Your task to perform on an android device: open app "Firefox Browser" (install if not already installed) Image 0: 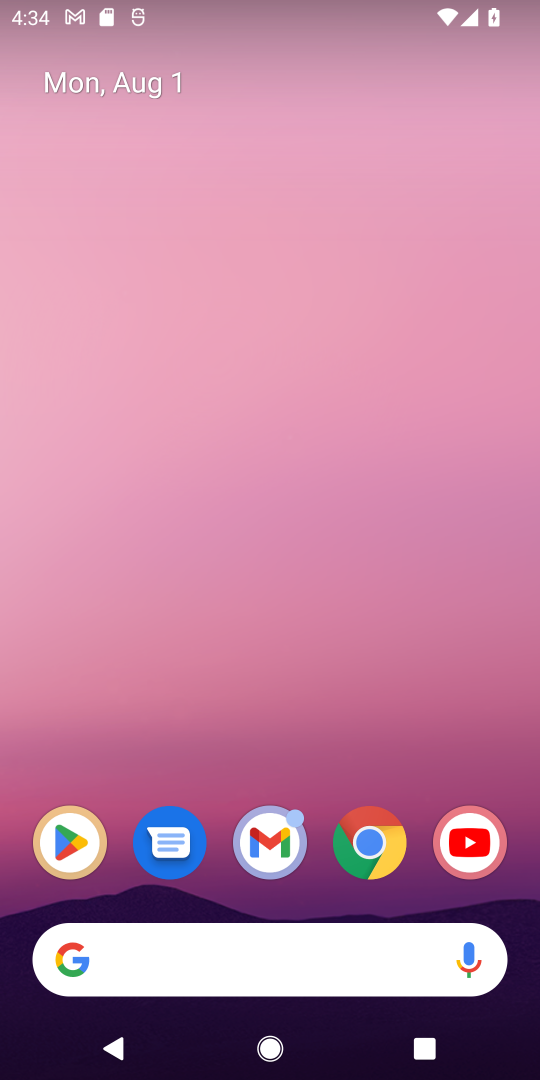
Step 0: drag from (347, 1009) to (206, 55)
Your task to perform on an android device: open app "Firefox Browser" (install if not already installed) Image 1: 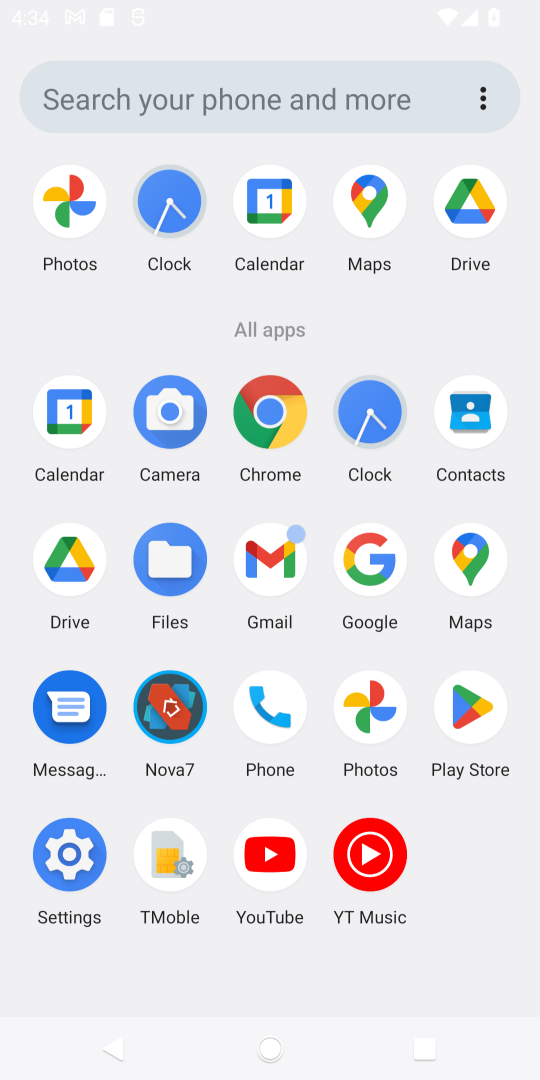
Step 1: drag from (348, 738) to (211, 140)
Your task to perform on an android device: open app "Firefox Browser" (install if not already installed) Image 2: 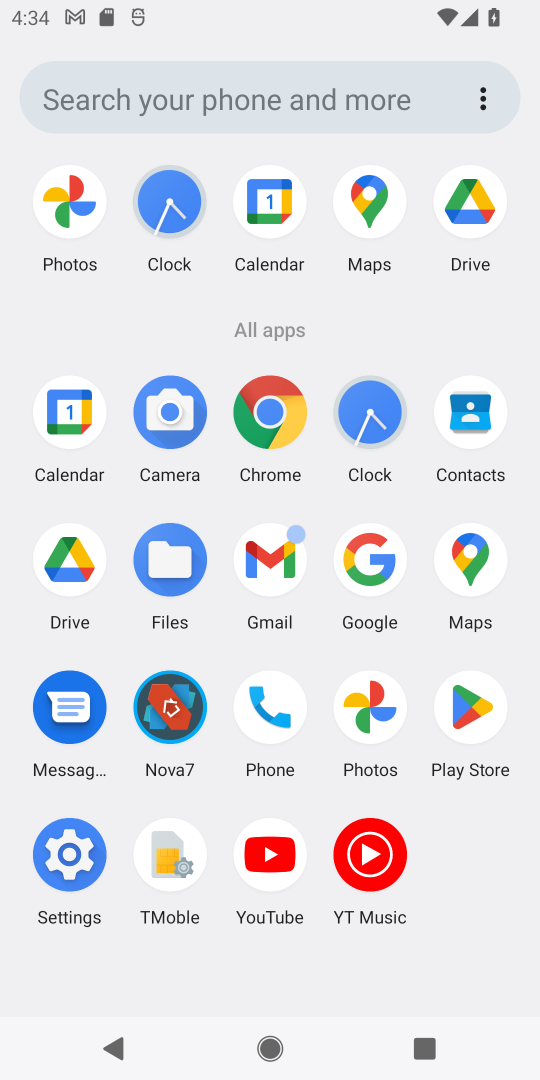
Step 2: click (431, 695)
Your task to perform on an android device: open app "Firefox Browser" (install if not already installed) Image 3: 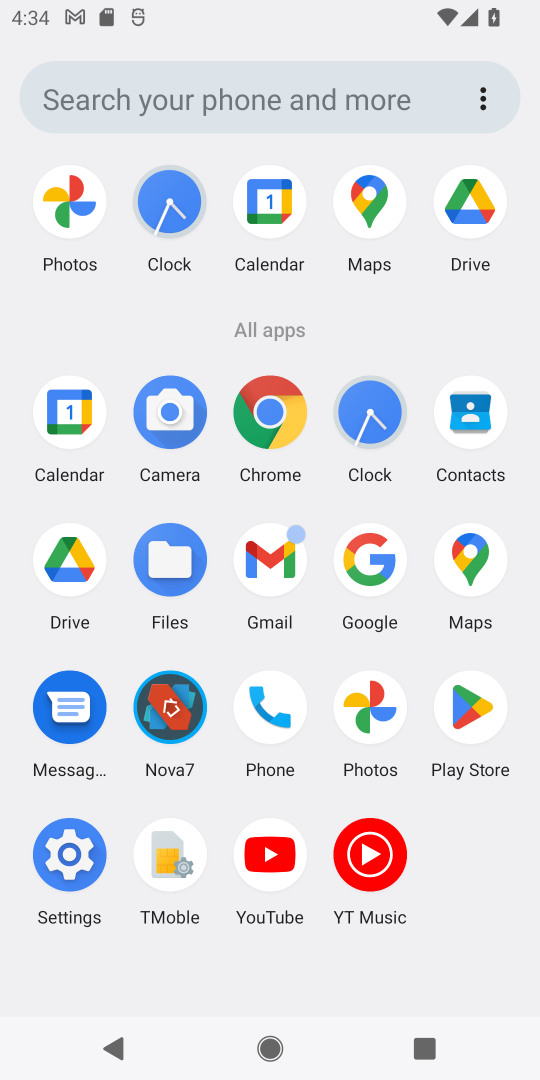
Step 3: click (439, 696)
Your task to perform on an android device: open app "Firefox Browser" (install if not already installed) Image 4: 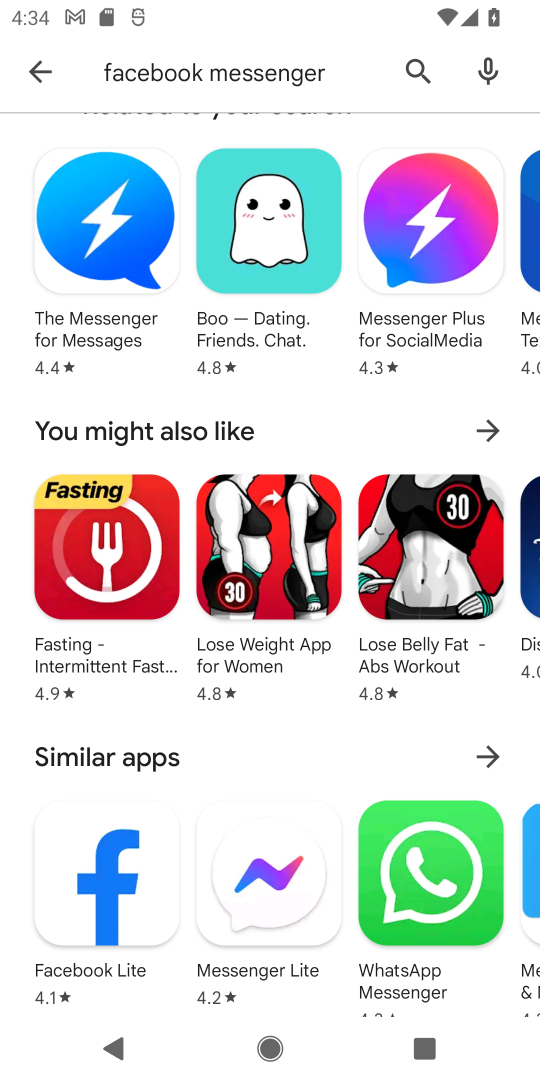
Step 4: click (32, 64)
Your task to perform on an android device: open app "Firefox Browser" (install if not already installed) Image 5: 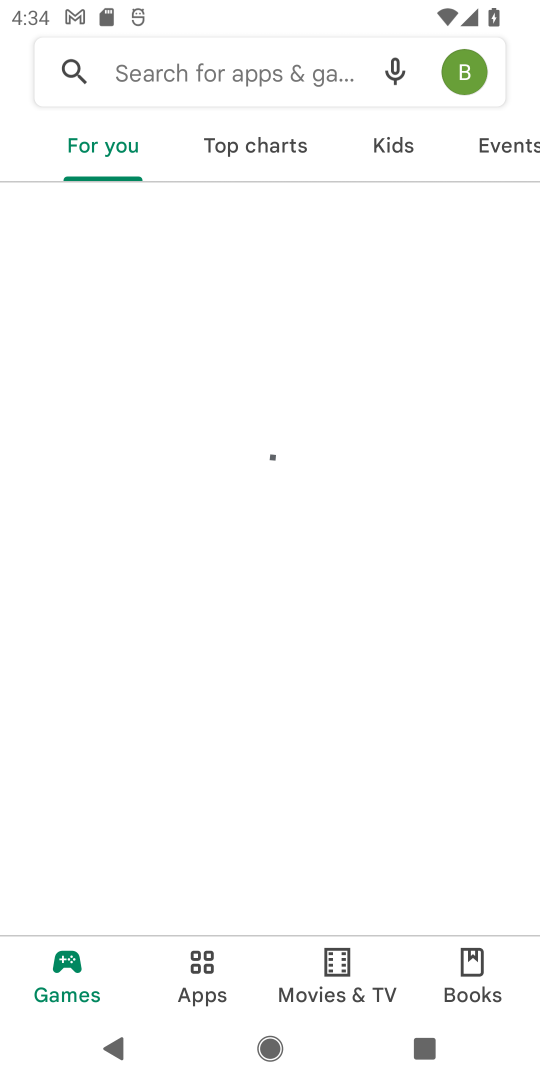
Step 5: click (30, 64)
Your task to perform on an android device: open app "Firefox Browser" (install if not already installed) Image 6: 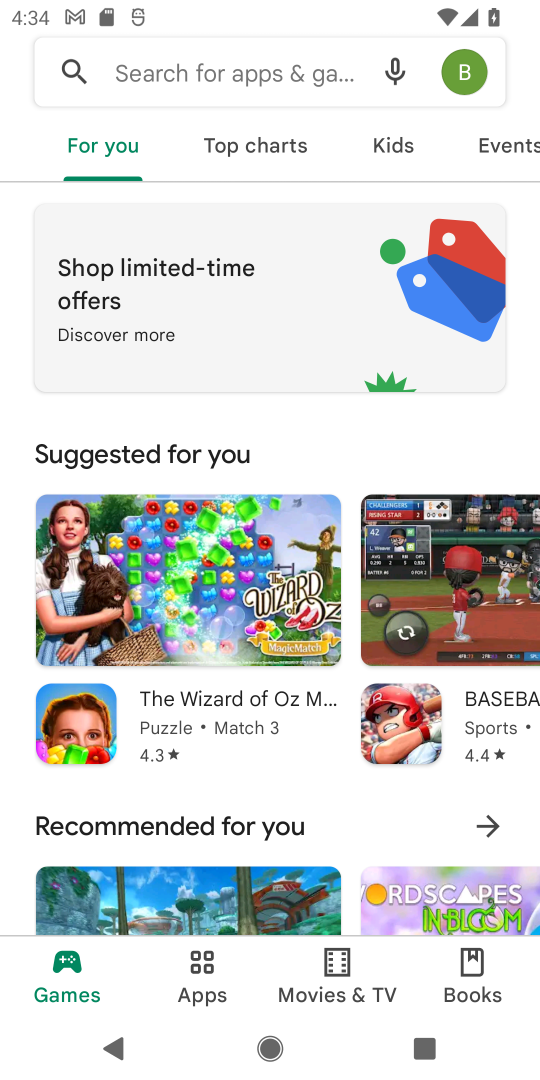
Step 6: click (154, 76)
Your task to perform on an android device: open app "Firefox Browser" (install if not already installed) Image 7: 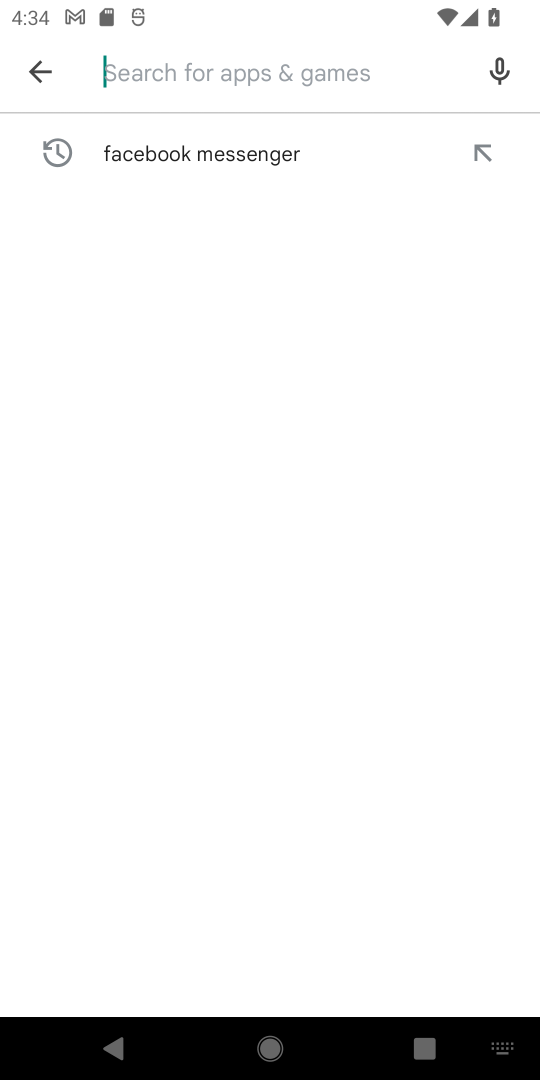
Step 7: click (39, 55)
Your task to perform on an android device: open app "Firefox Browser" (install if not already installed) Image 8: 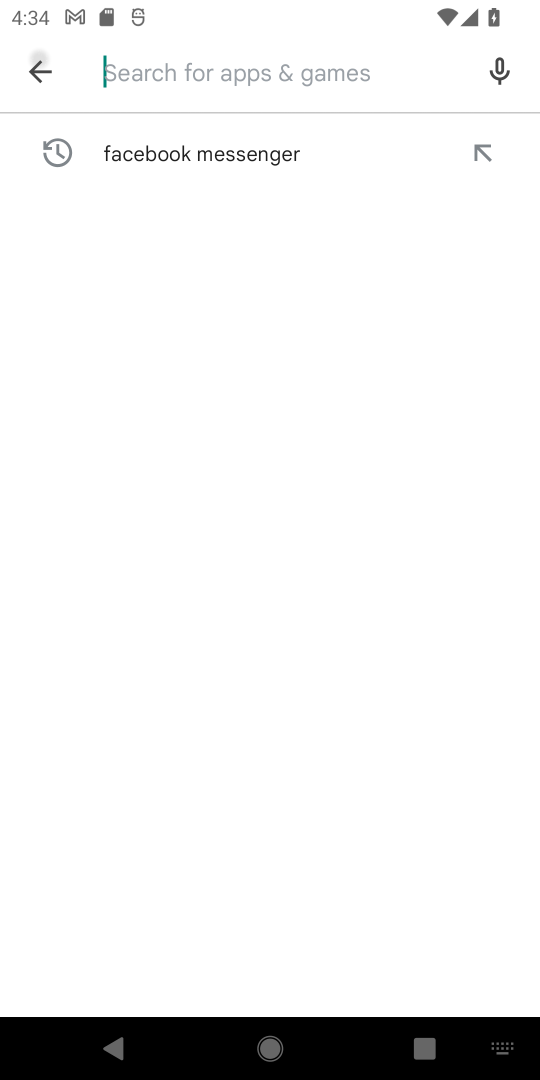
Step 8: click (35, 59)
Your task to perform on an android device: open app "Firefox Browser" (install if not already installed) Image 9: 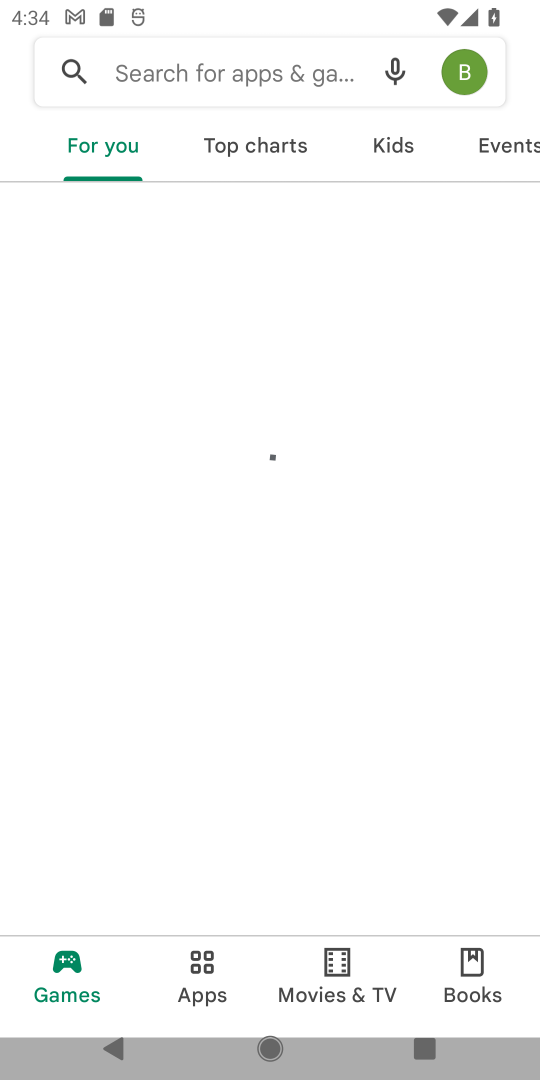
Step 9: click (35, 59)
Your task to perform on an android device: open app "Firefox Browser" (install if not already installed) Image 10: 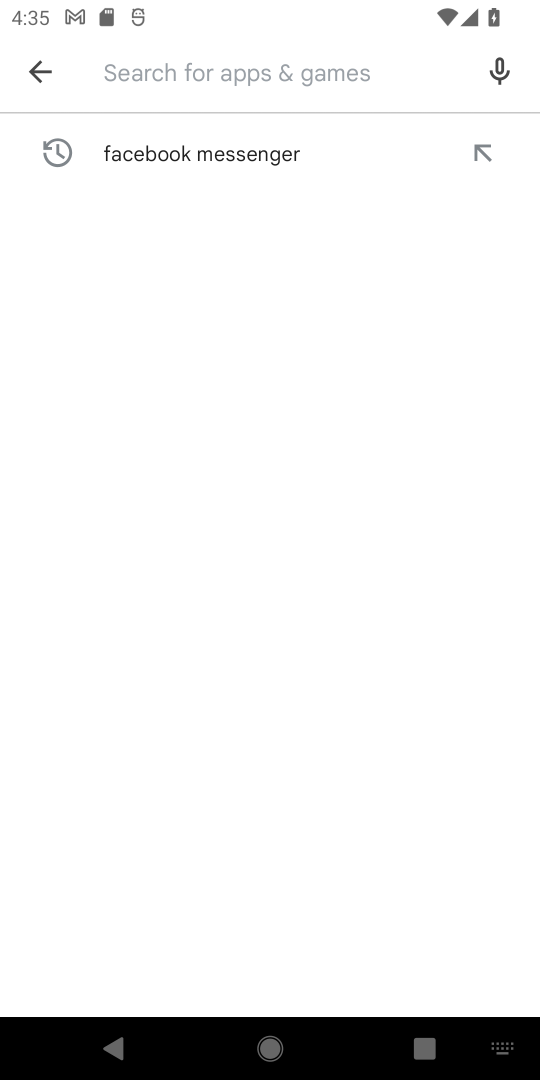
Step 10: click (117, 65)
Your task to perform on an android device: open app "Firefox Browser" (install if not already installed) Image 11: 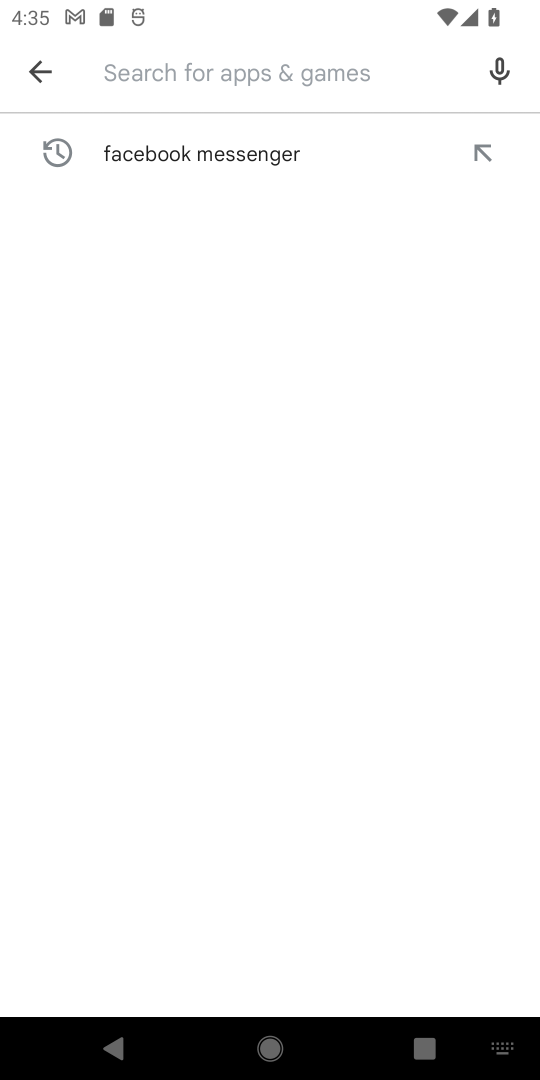
Step 11: type "firefox browser"
Your task to perform on an android device: open app "Firefox Browser" (install if not already installed) Image 12: 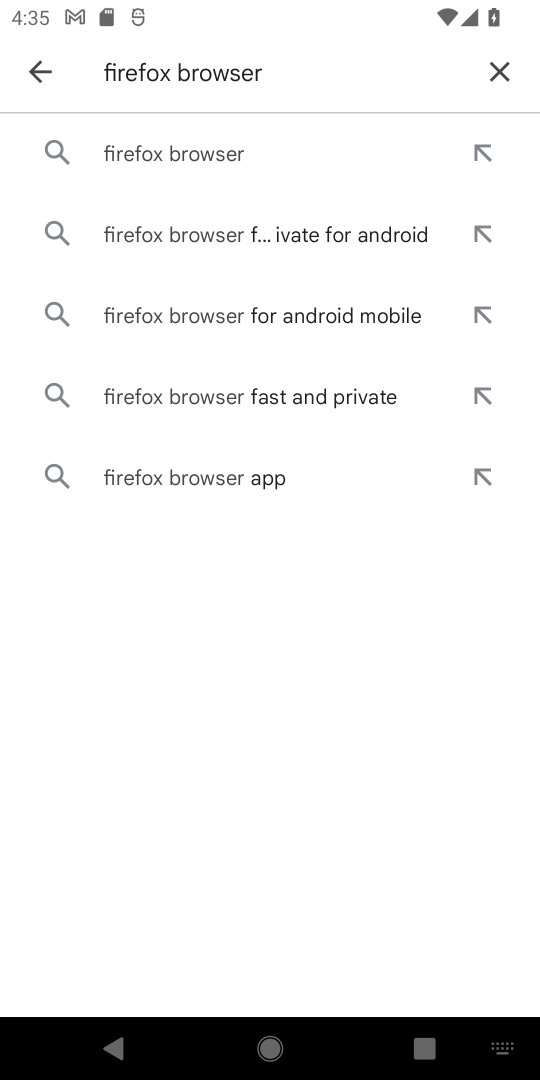
Step 12: click (200, 157)
Your task to perform on an android device: open app "Firefox Browser" (install if not already installed) Image 13: 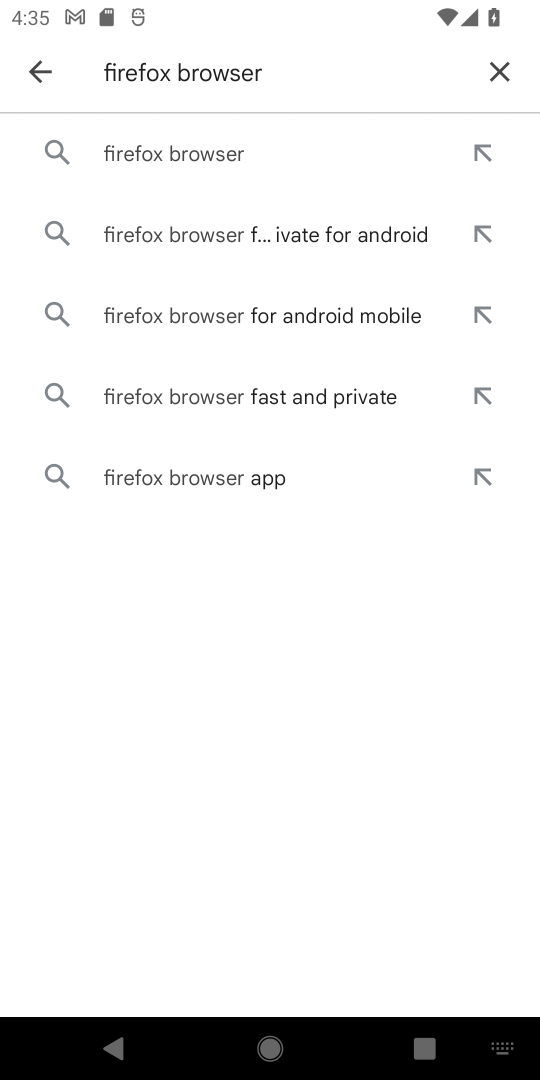
Step 13: click (232, 151)
Your task to perform on an android device: open app "Firefox Browser" (install if not already installed) Image 14: 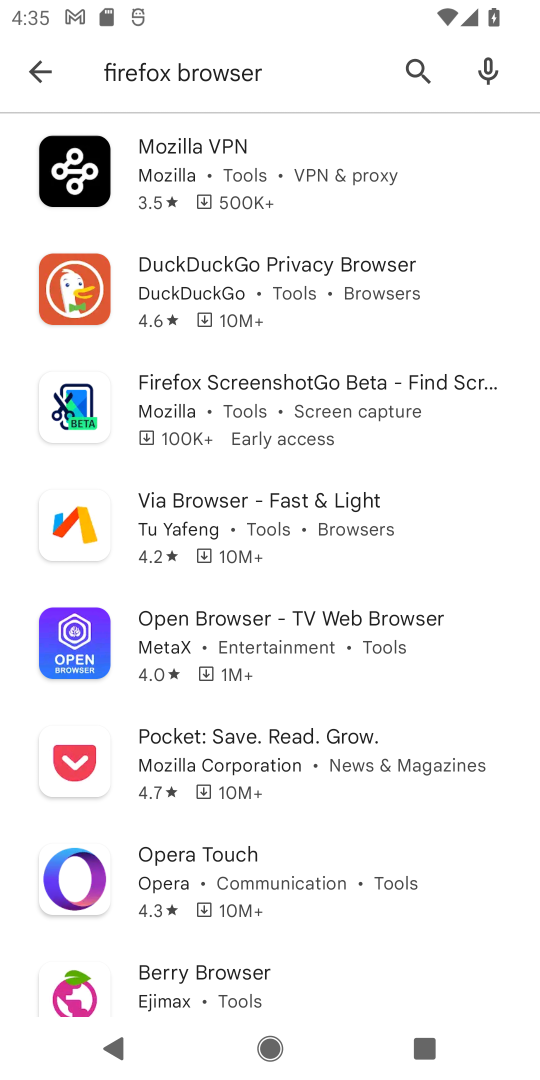
Step 14: task complete